Your task to perform on an android device: Clear all items from cart on newegg.com. Add sony triple a to the cart on newegg.com Image 0: 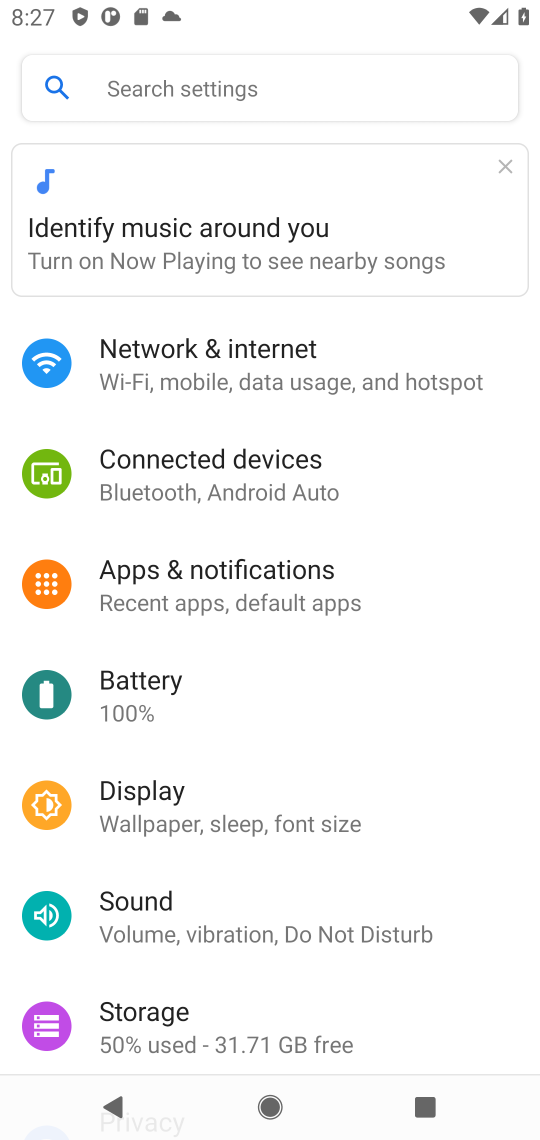
Step 0: task complete